Your task to perform on an android device: change timer sound Image 0: 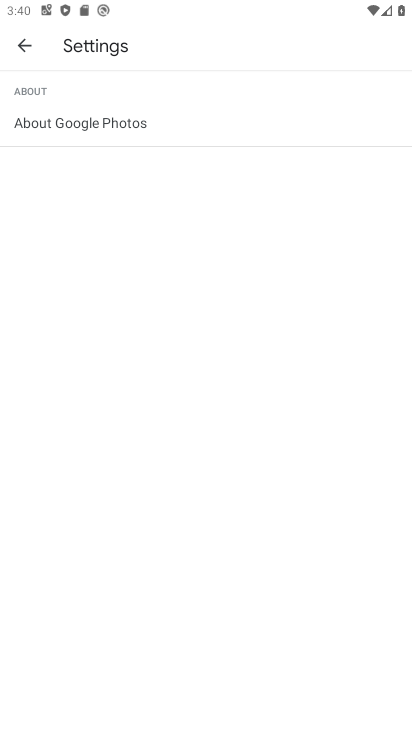
Step 0: press home button
Your task to perform on an android device: change timer sound Image 1: 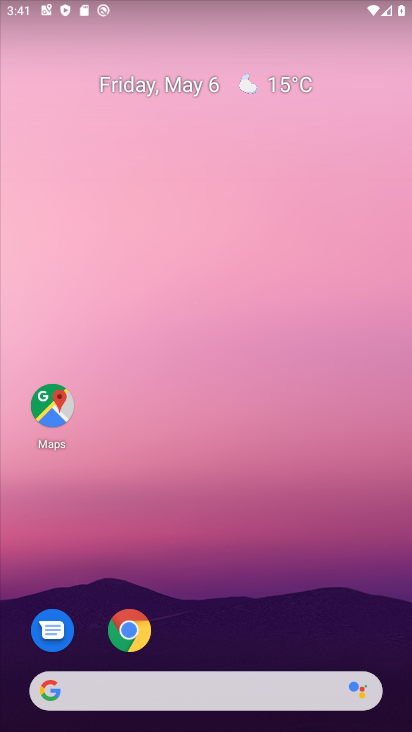
Step 1: drag from (216, 634) to (400, 195)
Your task to perform on an android device: change timer sound Image 2: 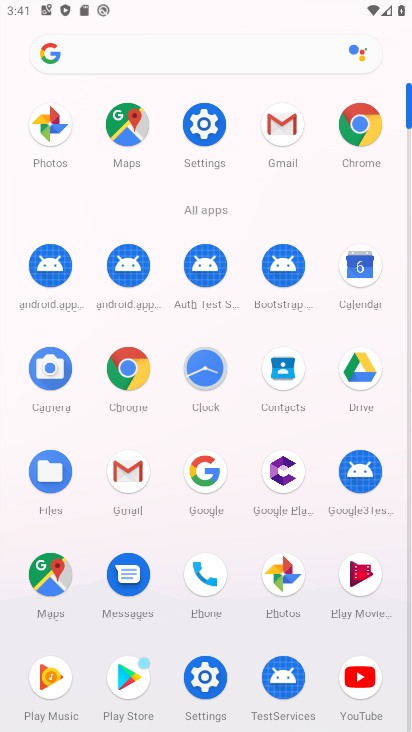
Step 2: drag from (250, 639) to (226, 147)
Your task to perform on an android device: change timer sound Image 3: 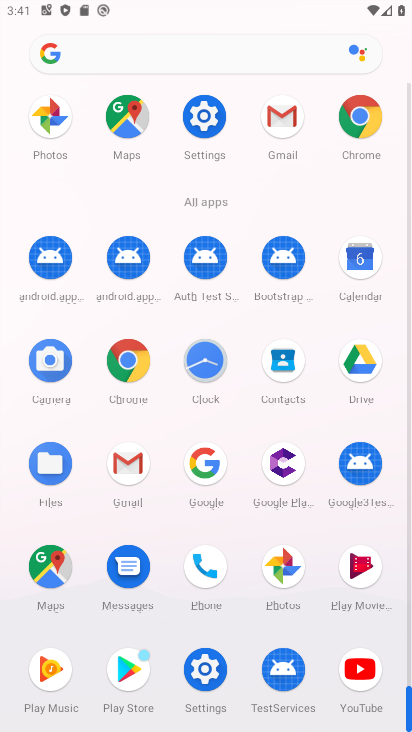
Step 3: click (203, 356)
Your task to perform on an android device: change timer sound Image 4: 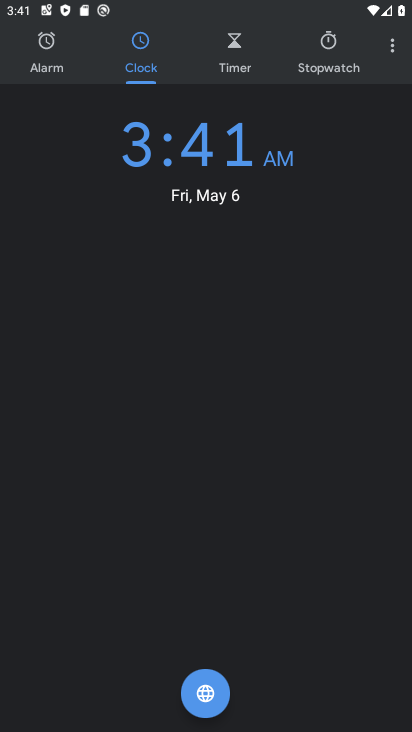
Step 4: click (385, 46)
Your task to perform on an android device: change timer sound Image 5: 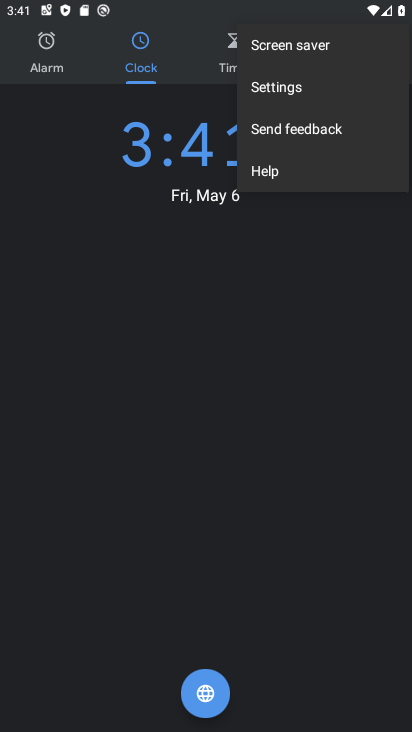
Step 5: click (309, 93)
Your task to perform on an android device: change timer sound Image 6: 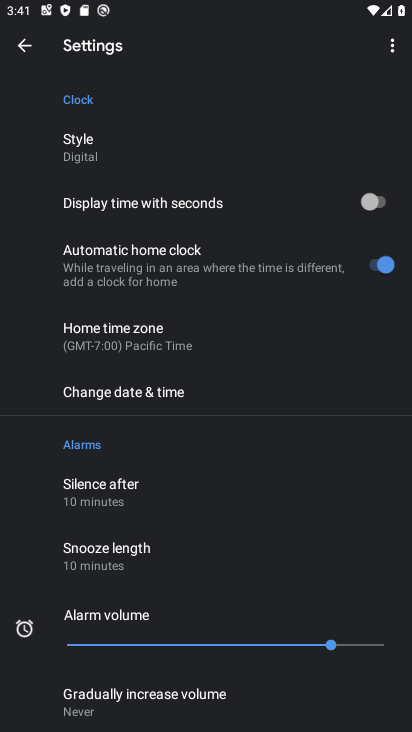
Step 6: drag from (179, 603) to (332, 152)
Your task to perform on an android device: change timer sound Image 7: 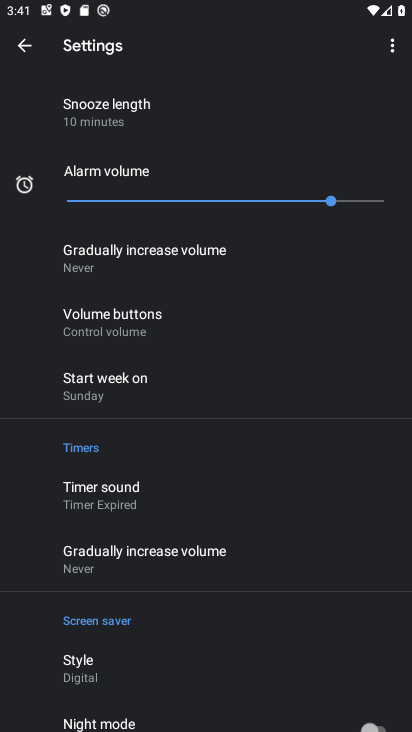
Step 7: drag from (160, 685) to (272, 248)
Your task to perform on an android device: change timer sound Image 8: 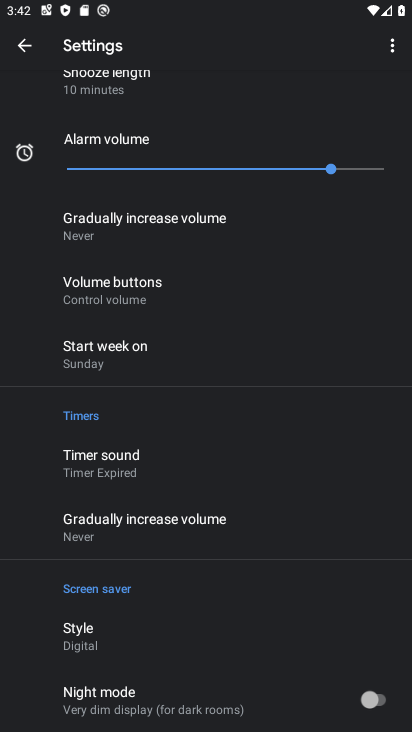
Step 8: click (186, 458)
Your task to perform on an android device: change timer sound Image 9: 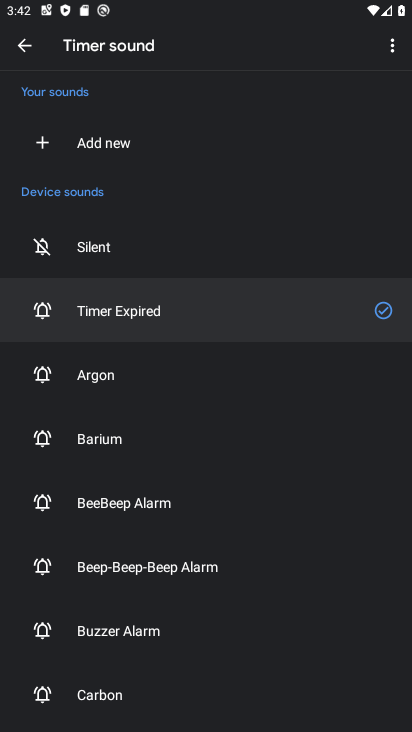
Step 9: click (106, 689)
Your task to perform on an android device: change timer sound Image 10: 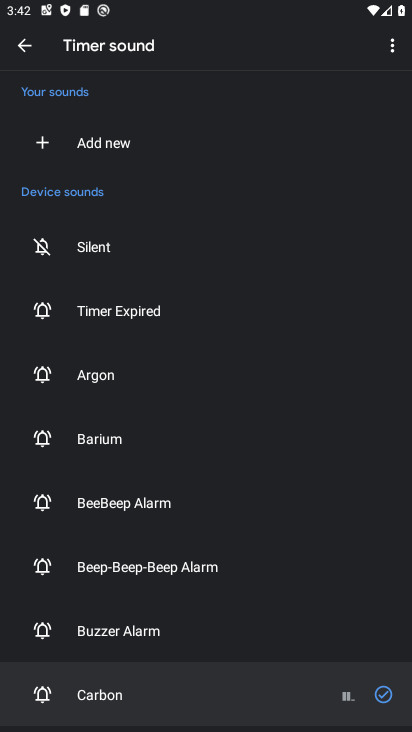
Step 10: task complete